Your task to perform on an android device: uninstall "Calculator" Image 0: 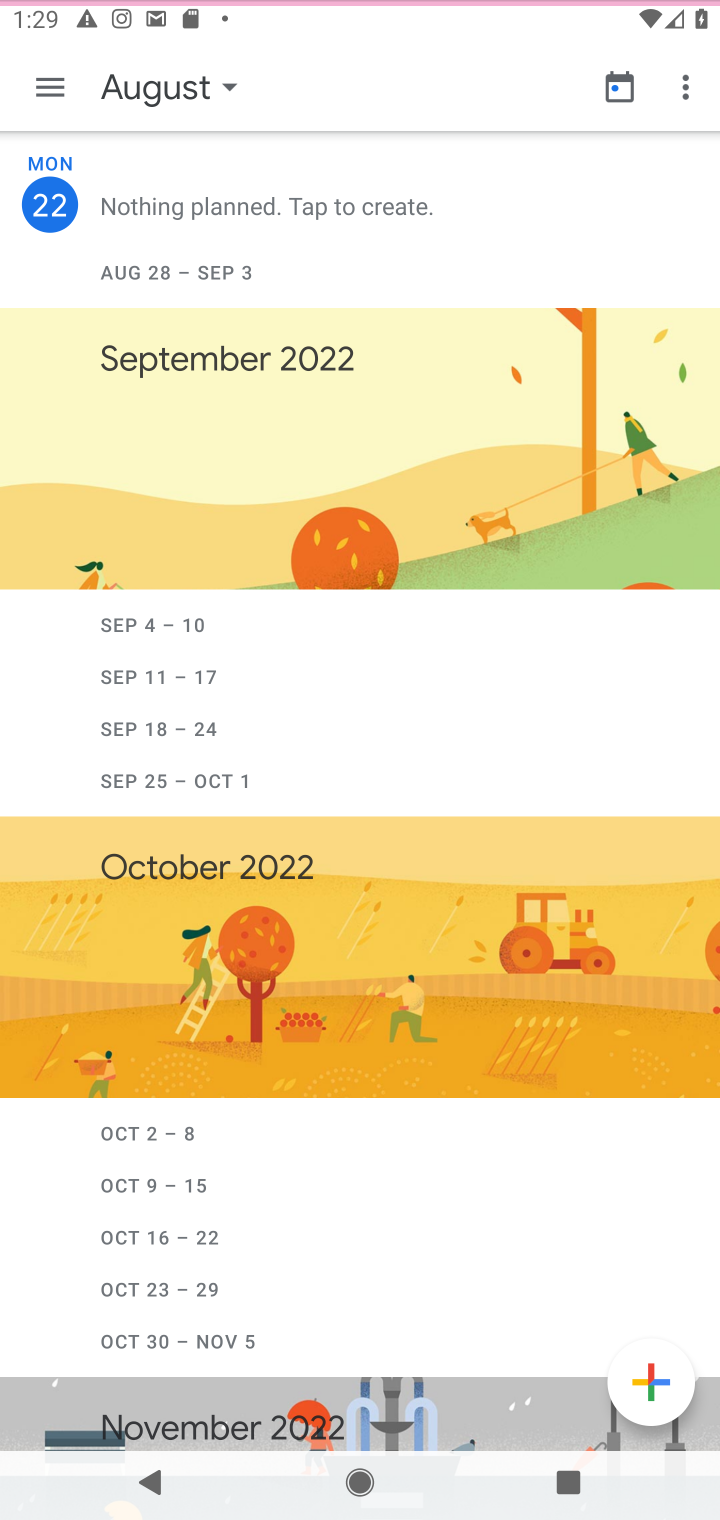
Step 0: press home button
Your task to perform on an android device: uninstall "Calculator" Image 1: 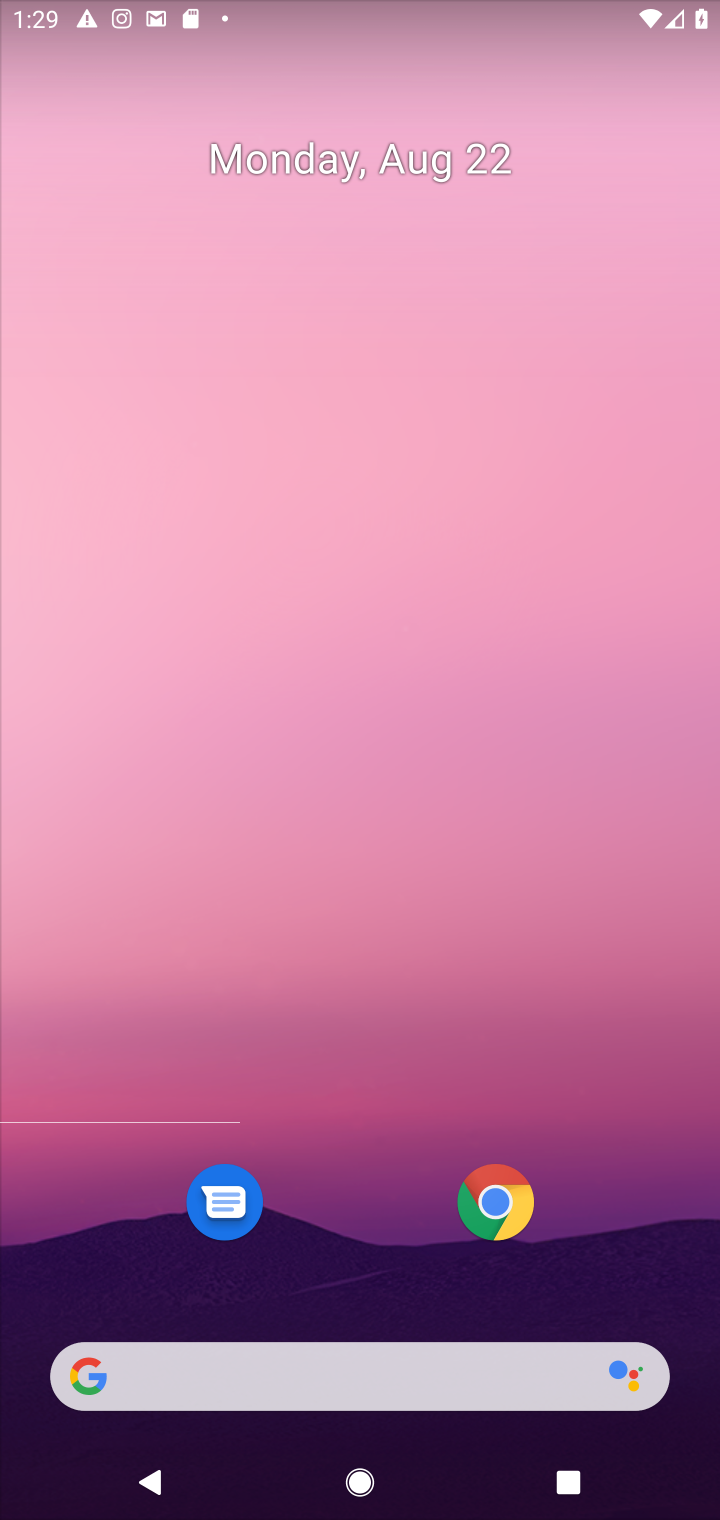
Step 1: press home button
Your task to perform on an android device: uninstall "Calculator" Image 2: 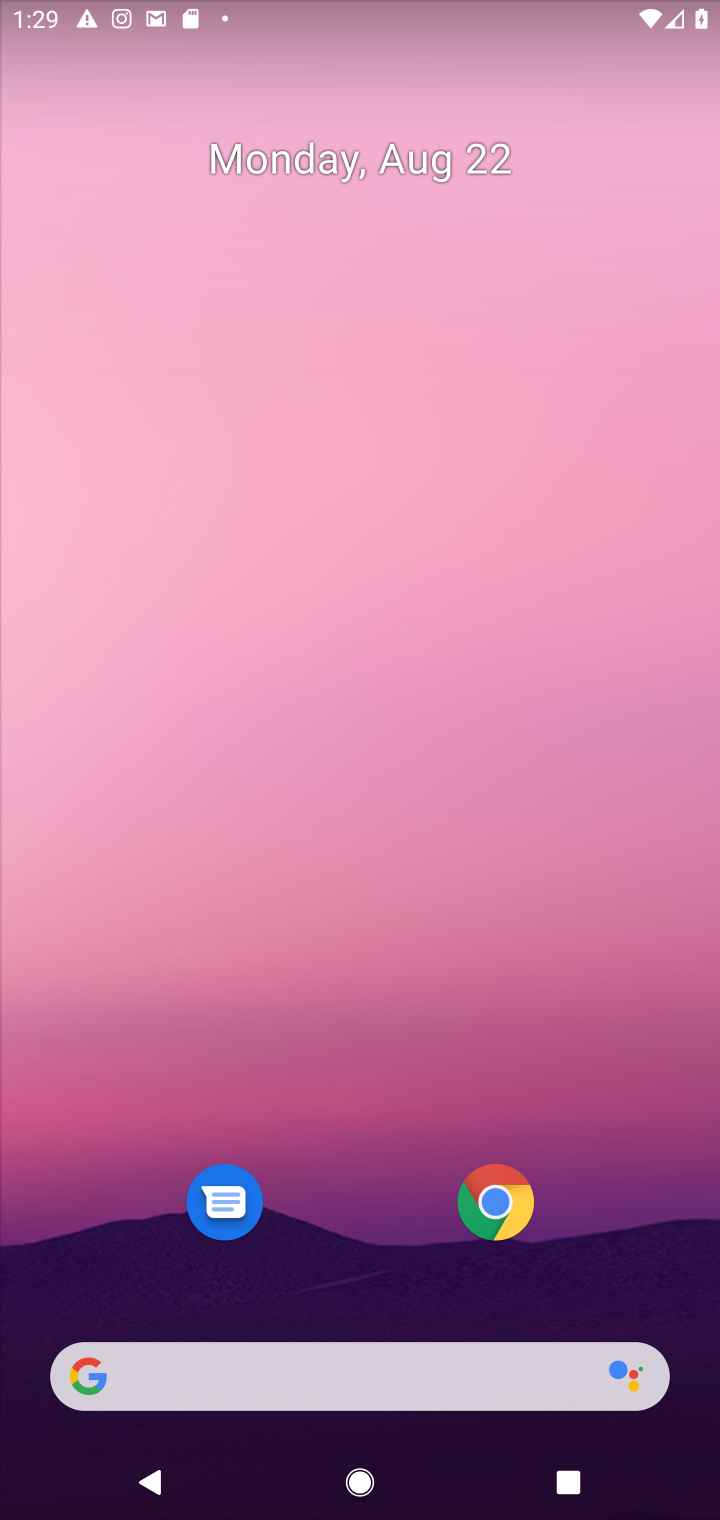
Step 2: drag from (345, 1295) to (345, 111)
Your task to perform on an android device: uninstall "Calculator" Image 3: 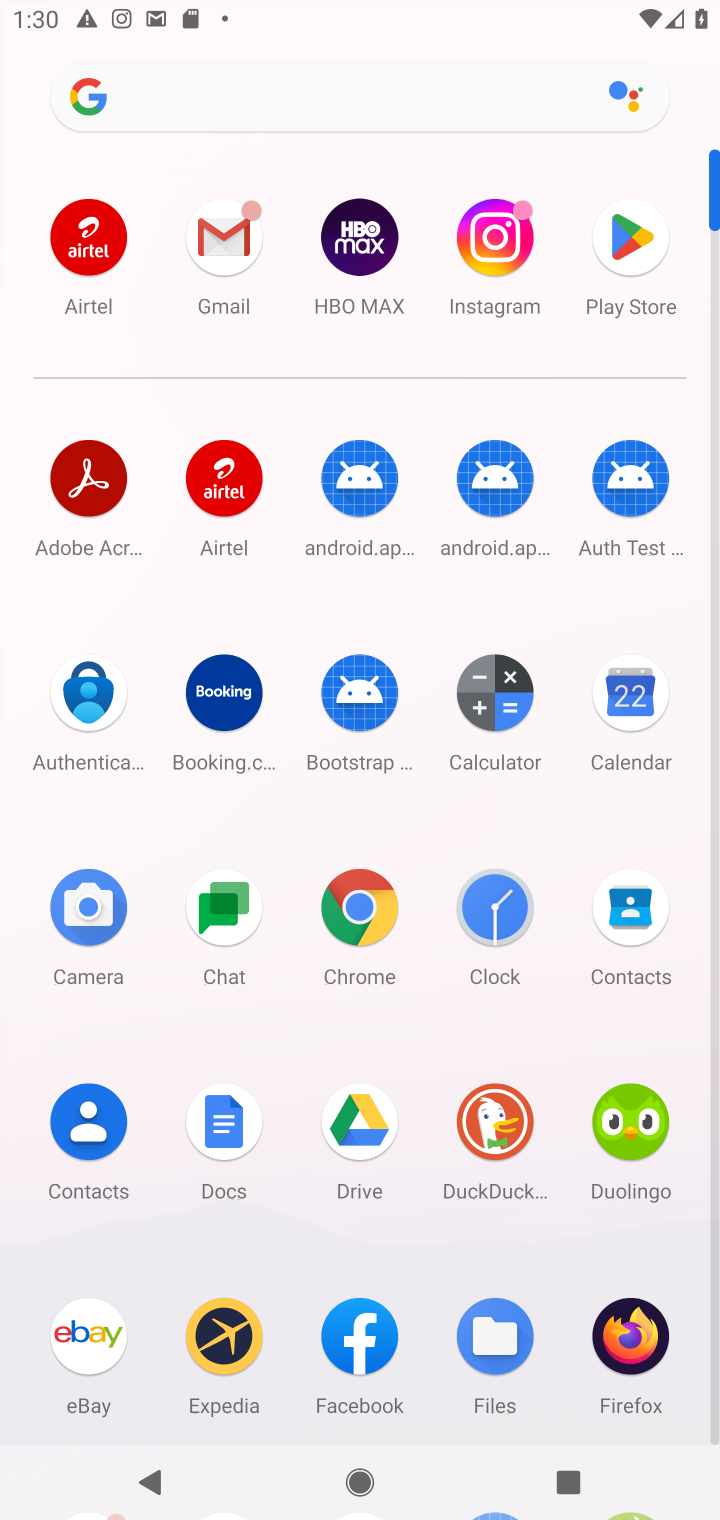
Step 3: click (642, 243)
Your task to perform on an android device: uninstall "Calculator" Image 4: 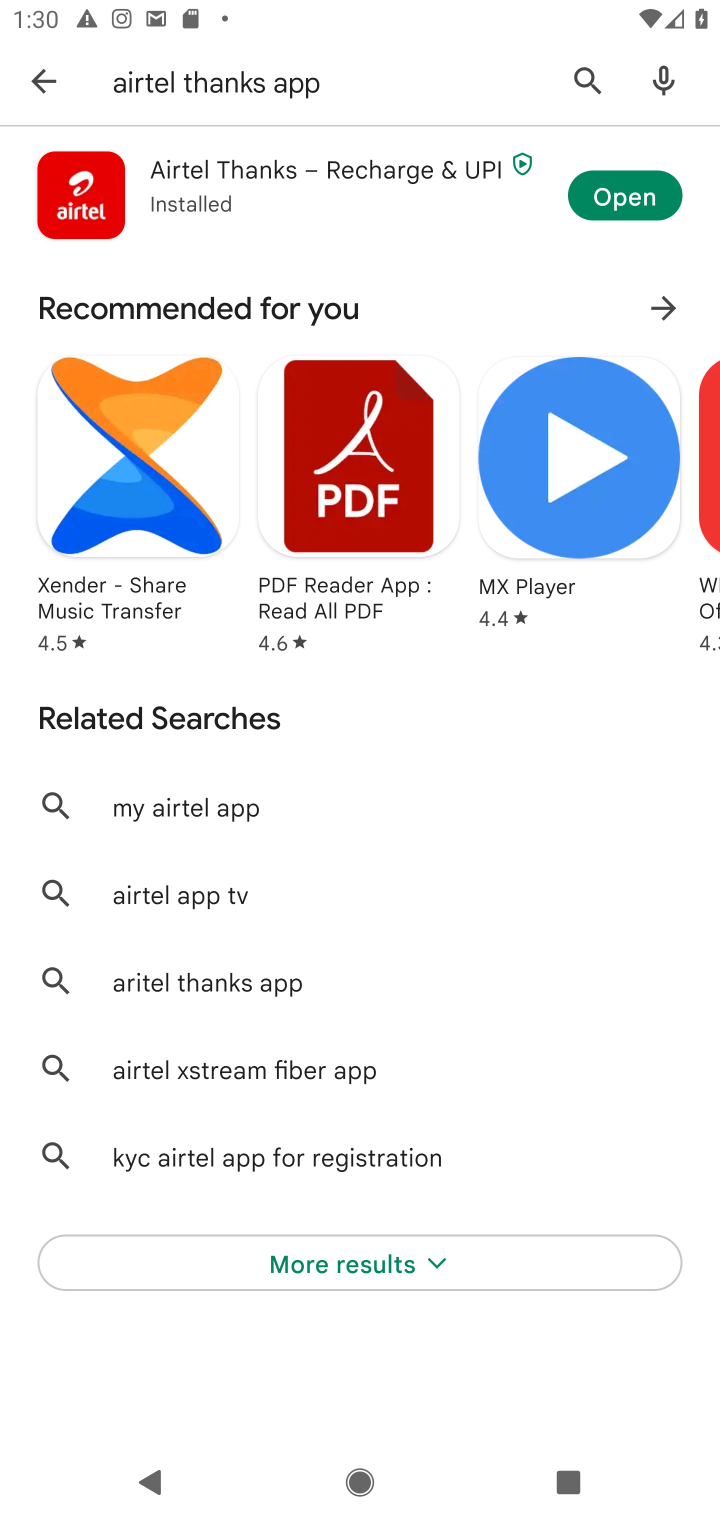
Step 4: click (582, 72)
Your task to perform on an android device: uninstall "Calculator" Image 5: 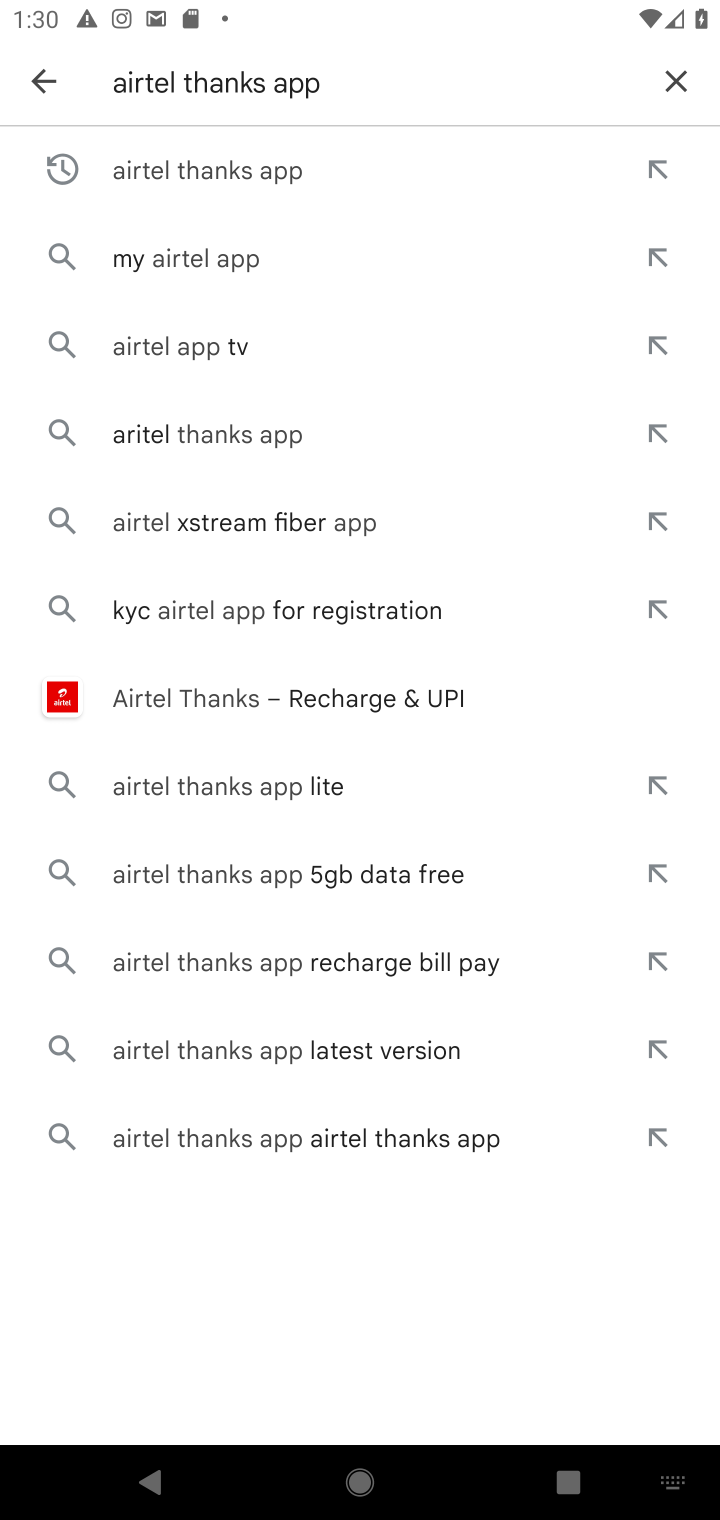
Step 5: click (675, 73)
Your task to perform on an android device: uninstall "Calculator" Image 6: 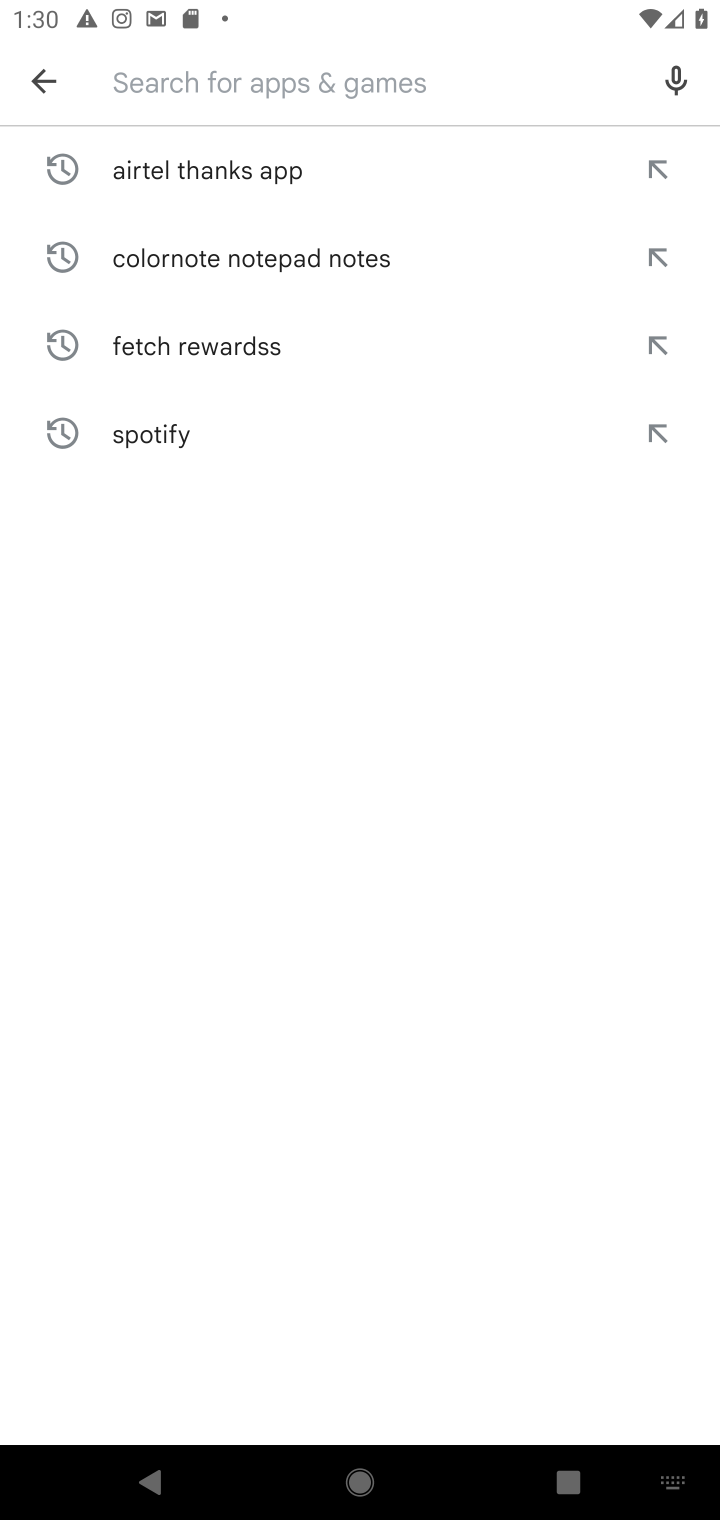
Step 6: type "Calculator"
Your task to perform on an android device: uninstall "Calculator" Image 7: 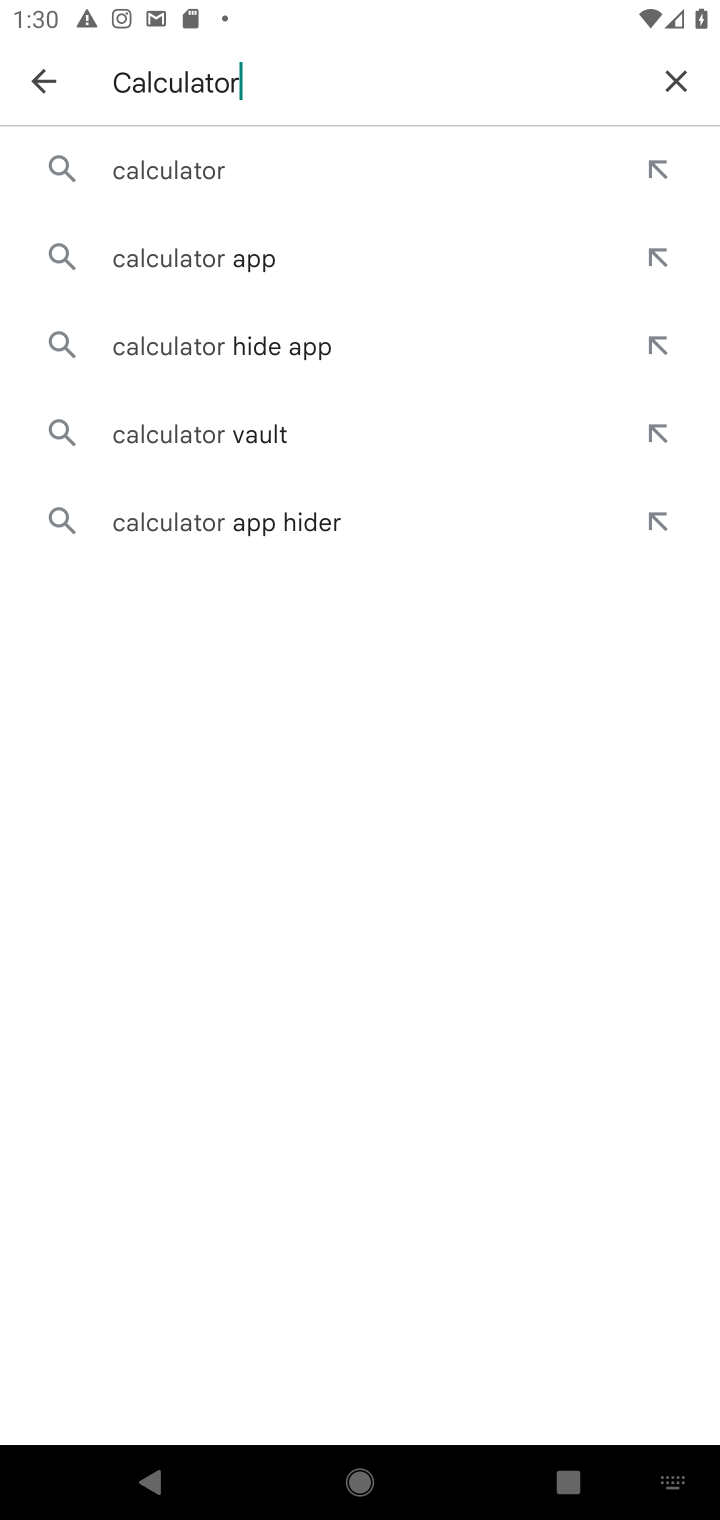
Step 7: click (197, 162)
Your task to perform on an android device: uninstall "Calculator" Image 8: 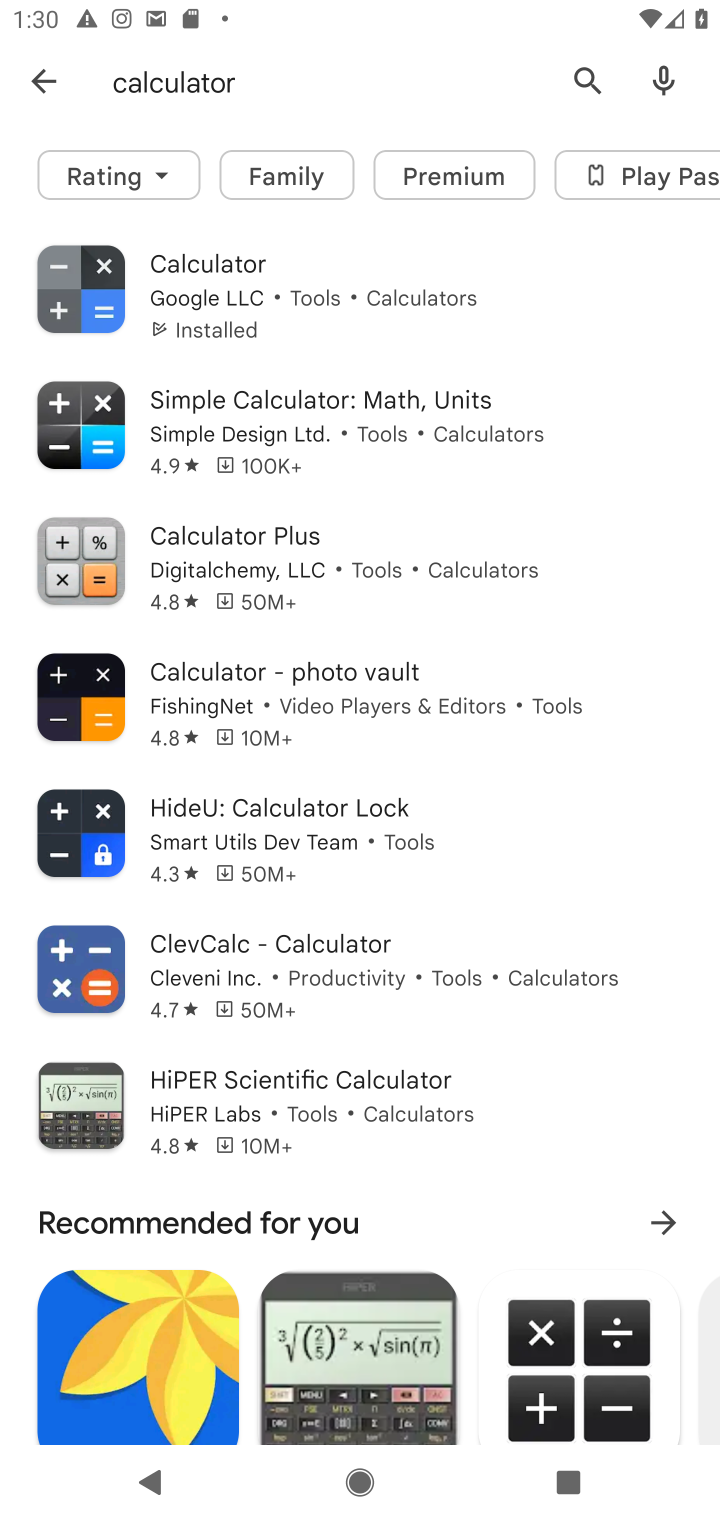
Step 8: click (199, 280)
Your task to perform on an android device: uninstall "Calculator" Image 9: 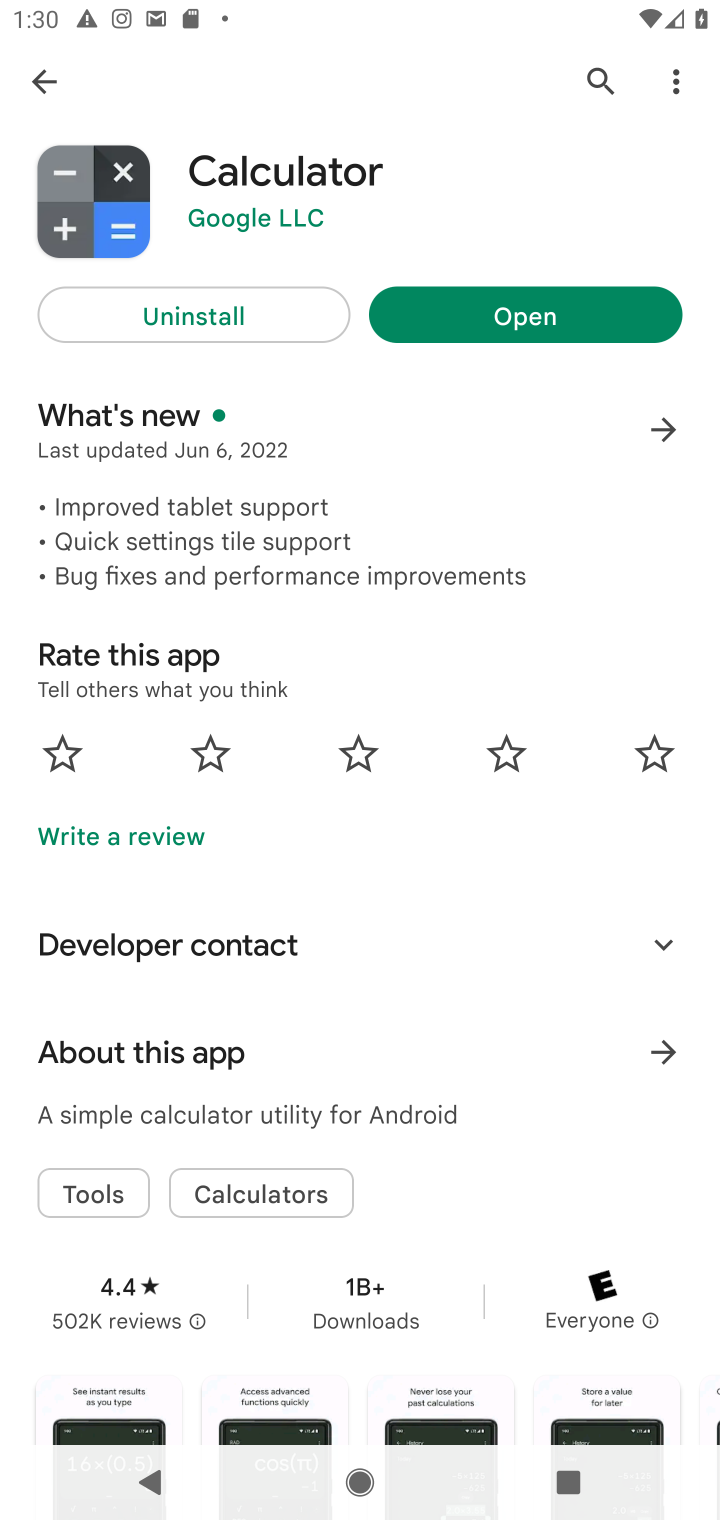
Step 9: click (186, 318)
Your task to perform on an android device: uninstall "Calculator" Image 10: 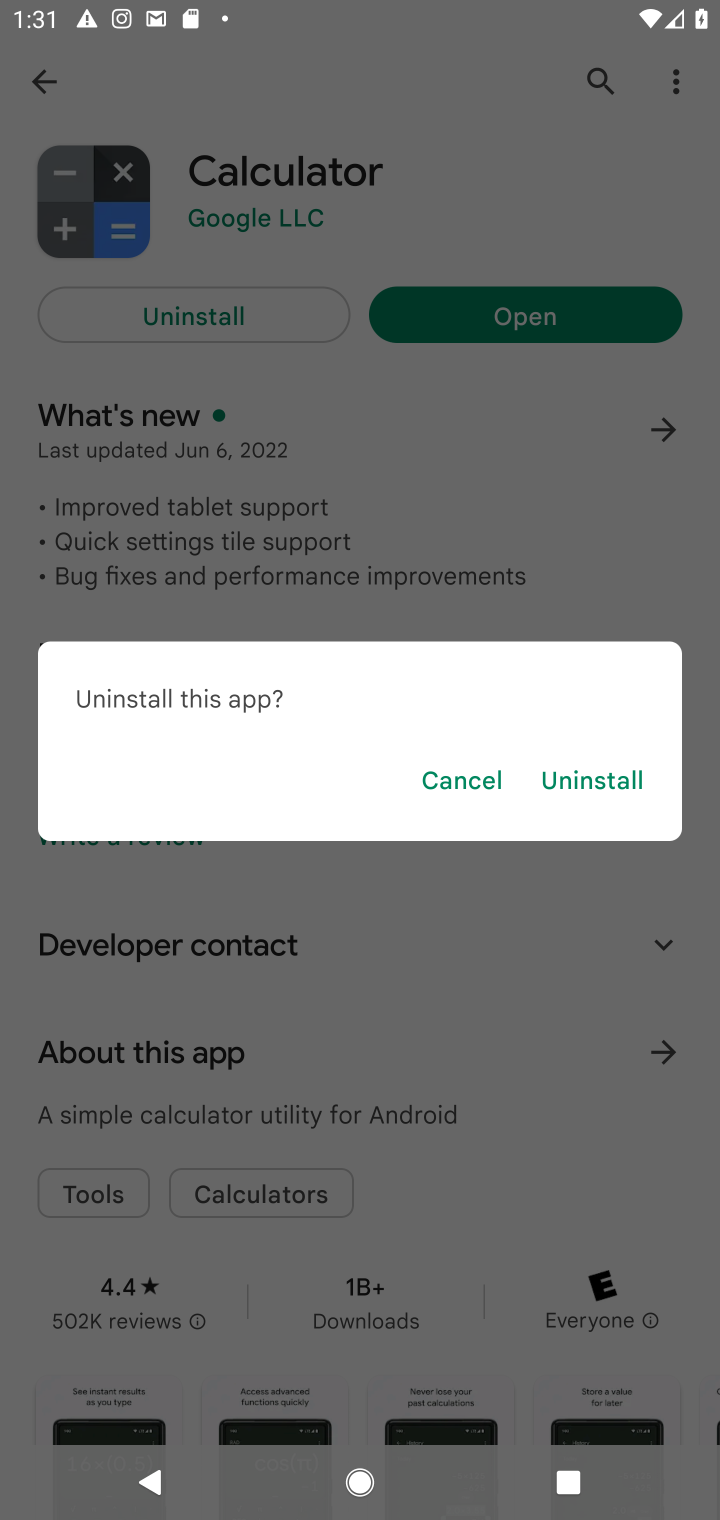
Step 10: click (617, 783)
Your task to perform on an android device: uninstall "Calculator" Image 11: 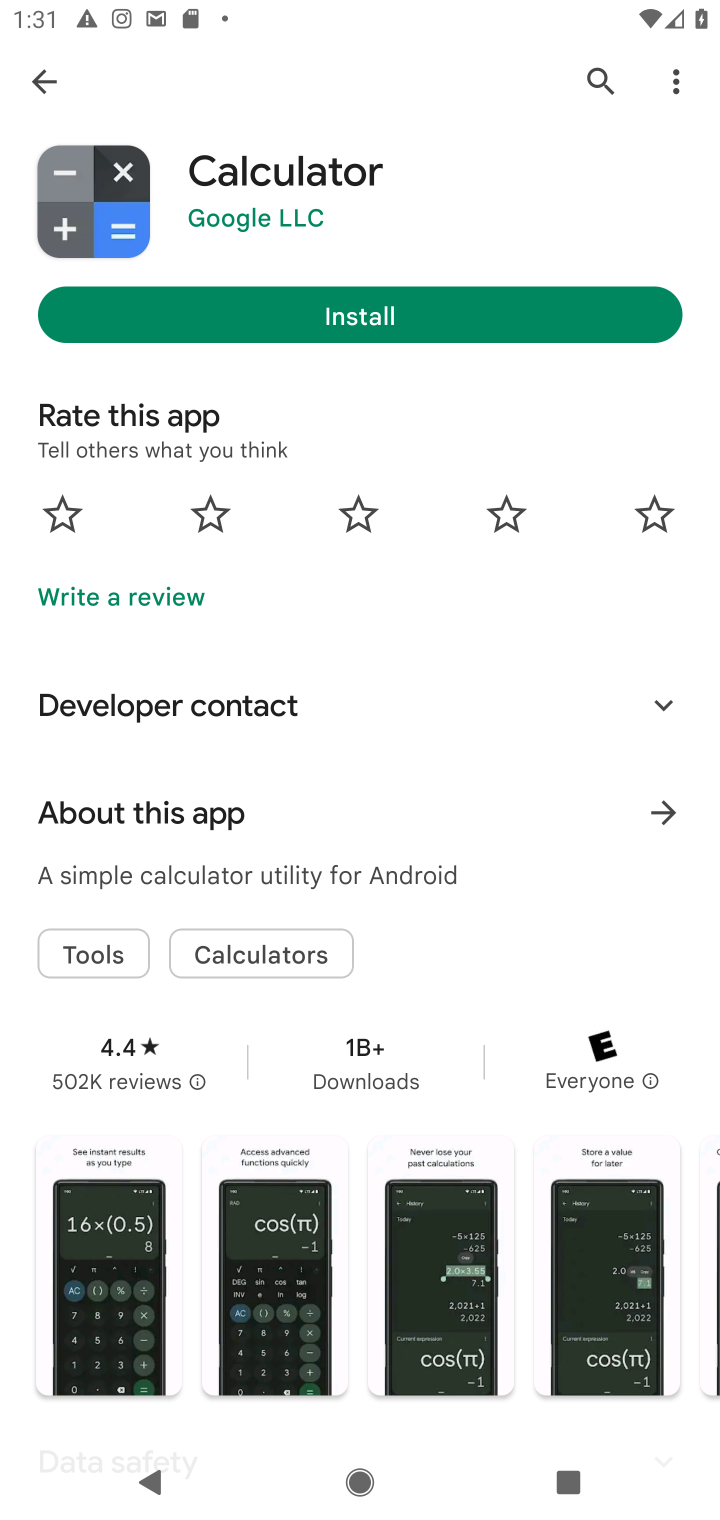
Step 11: task complete